Your task to perform on an android device: stop showing notifications on the lock screen Image 0: 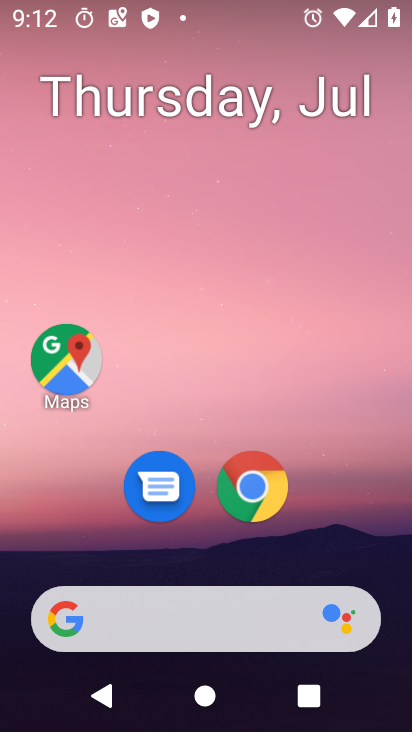
Step 0: drag from (259, 633) to (347, 246)
Your task to perform on an android device: stop showing notifications on the lock screen Image 1: 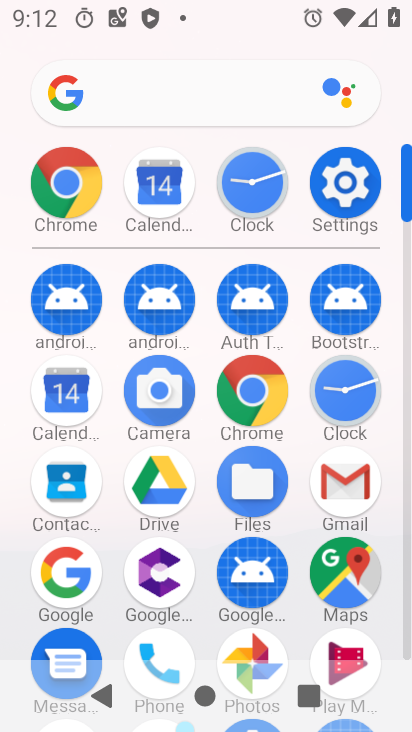
Step 1: click (354, 203)
Your task to perform on an android device: stop showing notifications on the lock screen Image 2: 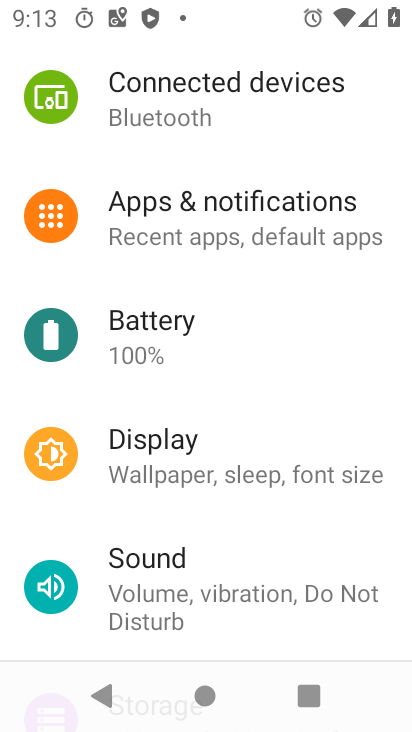
Step 2: click (236, 229)
Your task to perform on an android device: stop showing notifications on the lock screen Image 3: 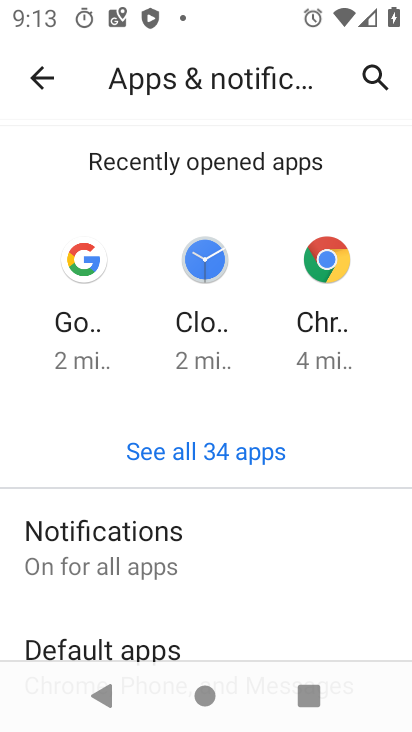
Step 3: click (210, 546)
Your task to perform on an android device: stop showing notifications on the lock screen Image 4: 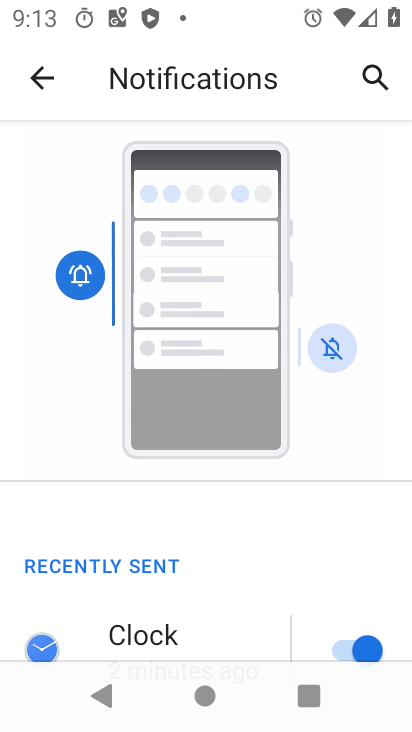
Step 4: drag from (228, 575) to (235, 115)
Your task to perform on an android device: stop showing notifications on the lock screen Image 5: 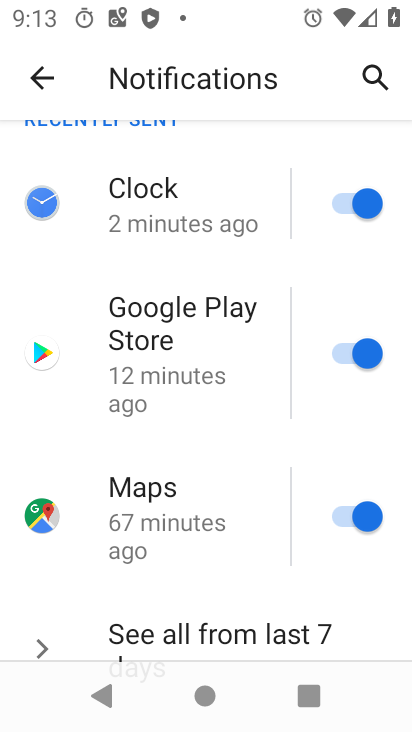
Step 5: drag from (169, 544) to (219, 57)
Your task to perform on an android device: stop showing notifications on the lock screen Image 6: 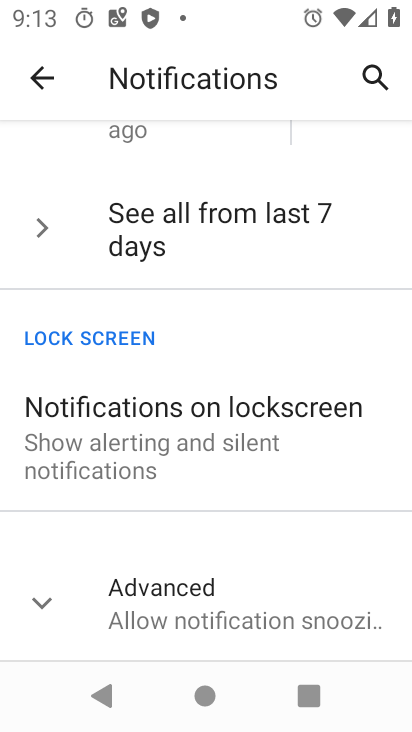
Step 6: click (207, 442)
Your task to perform on an android device: stop showing notifications on the lock screen Image 7: 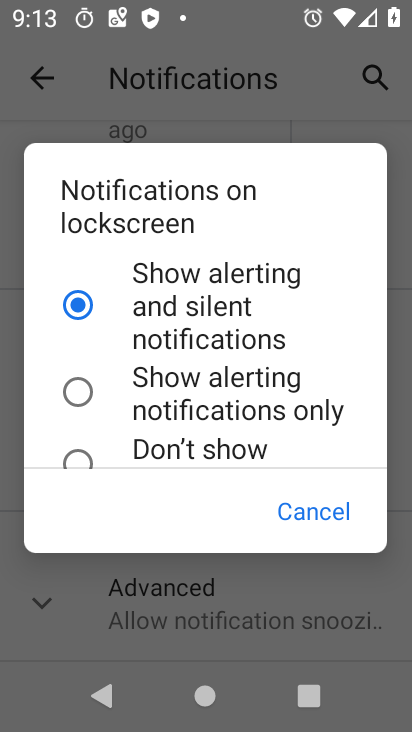
Step 7: click (175, 445)
Your task to perform on an android device: stop showing notifications on the lock screen Image 8: 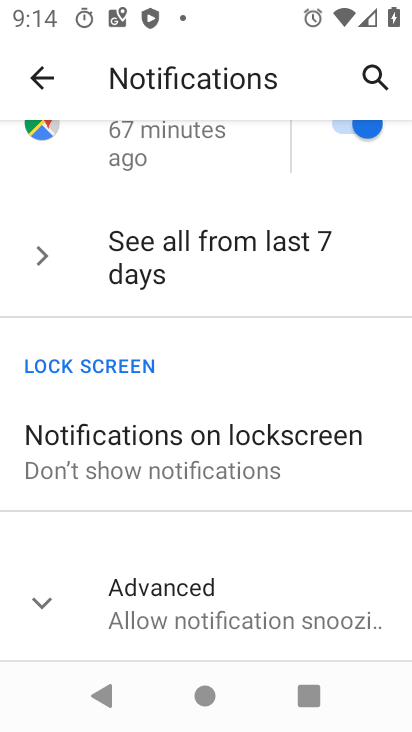
Step 8: task complete